Your task to perform on an android device: Open CNN.com Image 0: 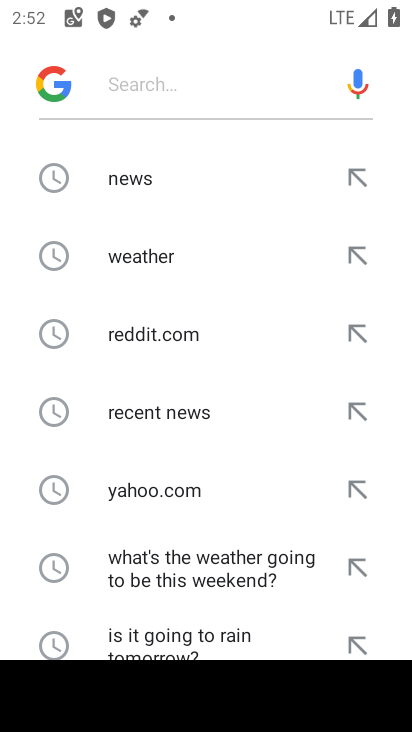
Step 0: press home button
Your task to perform on an android device: Open CNN.com Image 1: 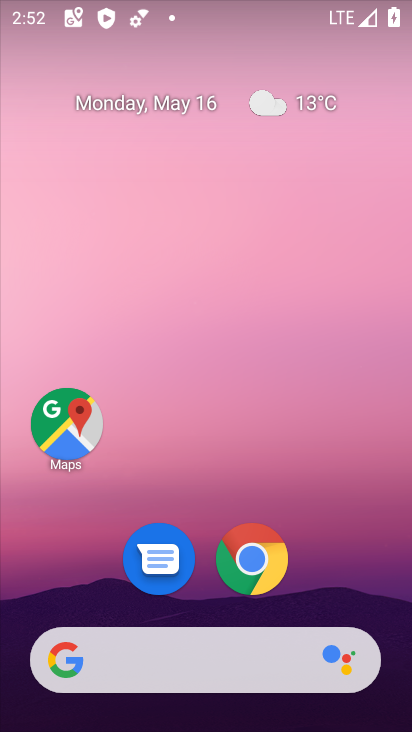
Step 1: click (248, 563)
Your task to perform on an android device: Open CNN.com Image 2: 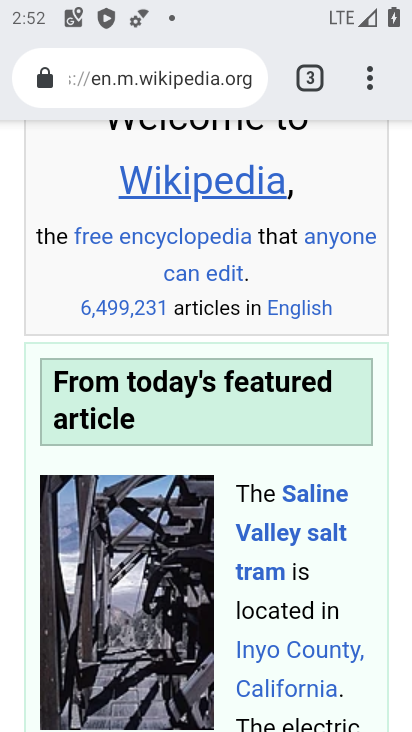
Step 2: click (317, 80)
Your task to perform on an android device: Open CNN.com Image 3: 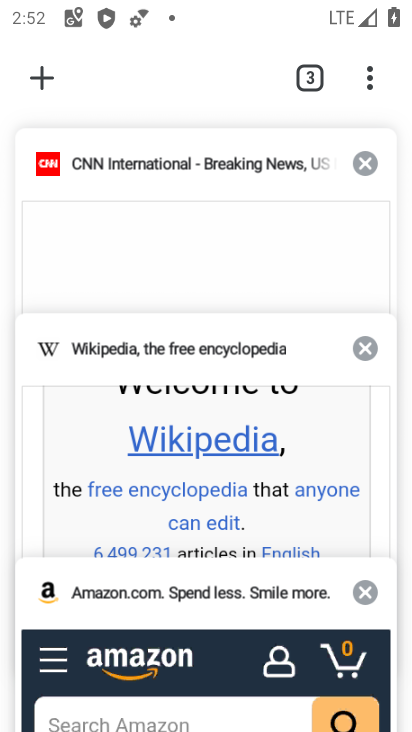
Step 3: click (30, 173)
Your task to perform on an android device: Open CNN.com Image 4: 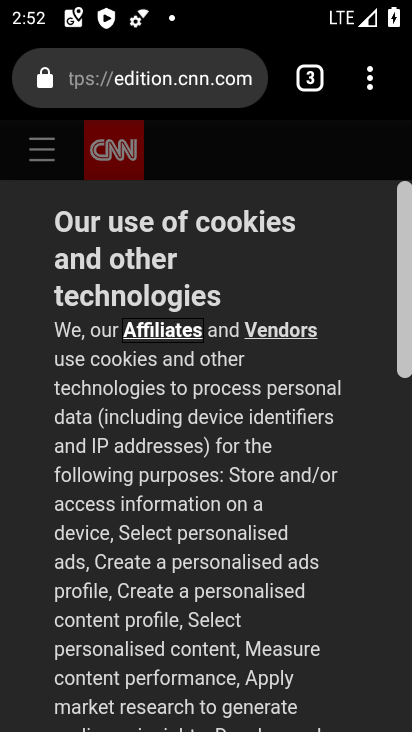
Step 4: task complete